Your task to perform on an android device: turn off improve location accuracy Image 0: 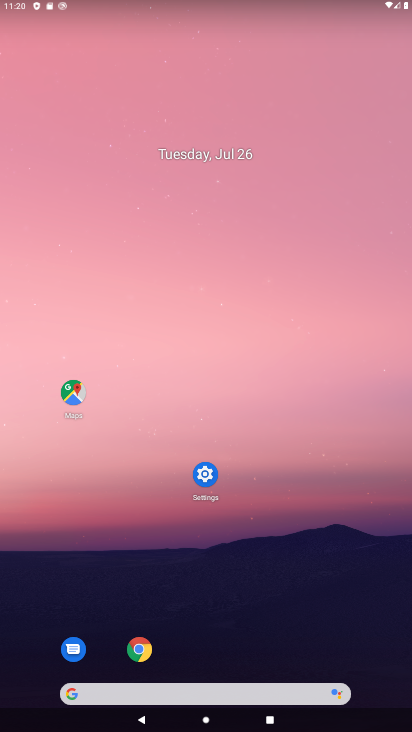
Step 0: click (128, 213)
Your task to perform on an android device: turn off improve location accuracy Image 1: 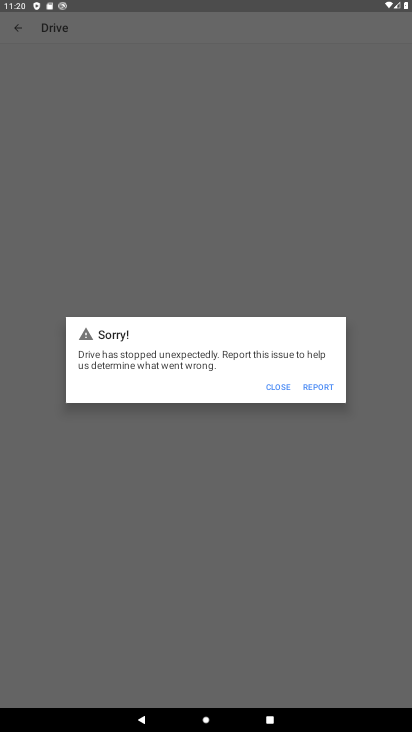
Step 1: click (272, 383)
Your task to perform on an android device: turn off improve location accuracy Image 2: 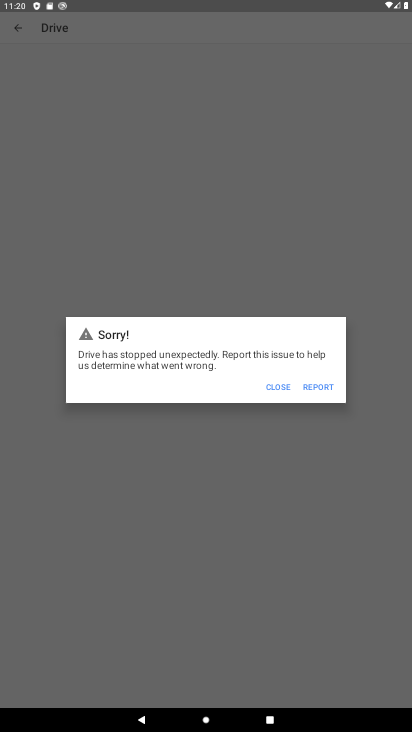
Step 2: click (274, 381)
Your task to perform on an android device: turn off improve location accuracy Image 3: 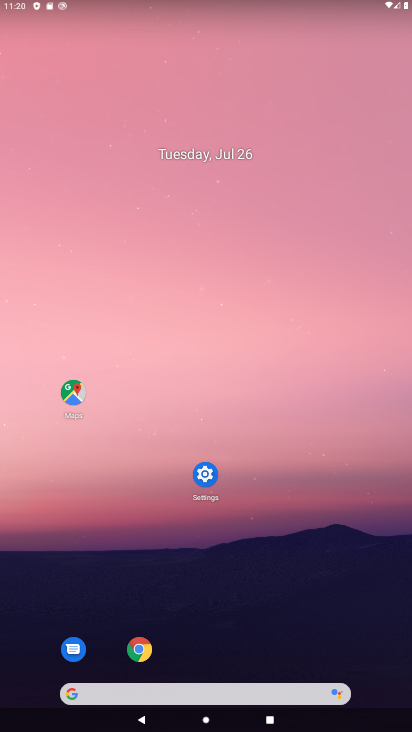
Step 3: click (204, 26)
Your task to perform on an android device: turn off improve location accuracy Image 4: 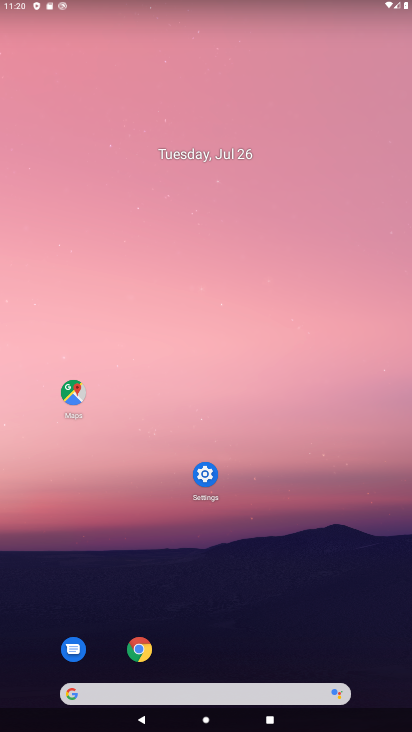
Step 4: drag from (285, 514) to (134, 213)
Your task to perform on an android device: turn off improve location accuracy Image 5: 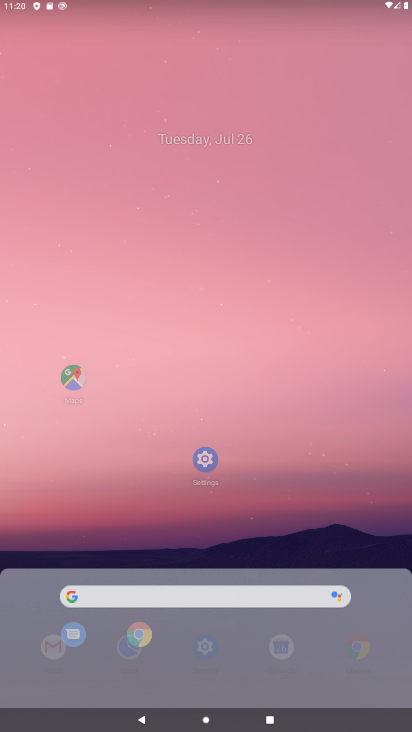
Step 5: drag from (281, 510) to (282, 227)
Your task to perform on an android device: turn off improve location accuracy Image 6: 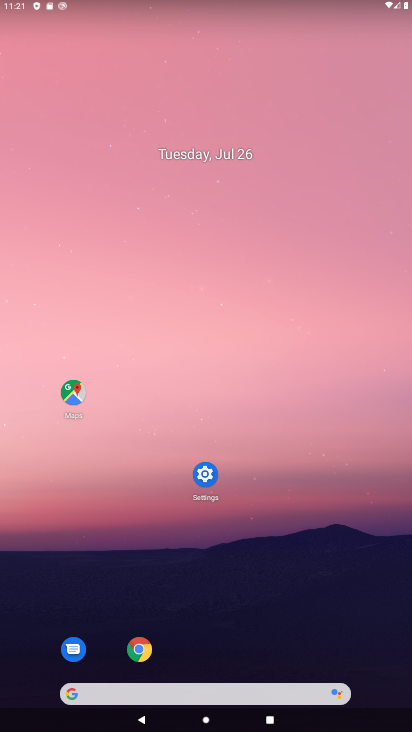
Step 6: drag from (204, 468) to (173, 244)
Your task to perform on an android device: turn off improve location accuracy Image 7: 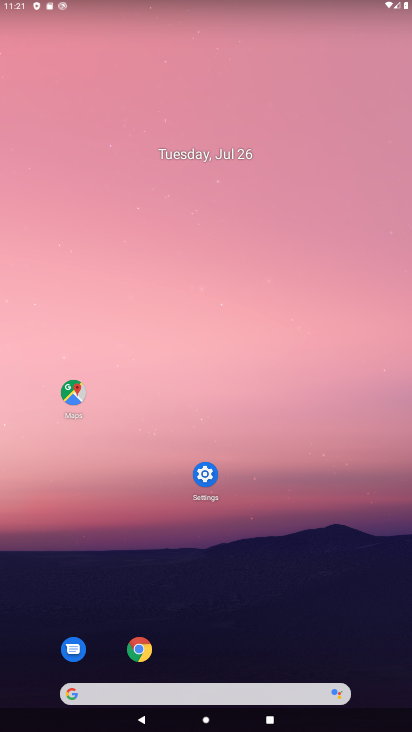
Step 7: drag from (251, 448) to (250, 386)
Your task to perform on an android device: turn off improve location accuracy Image 8: 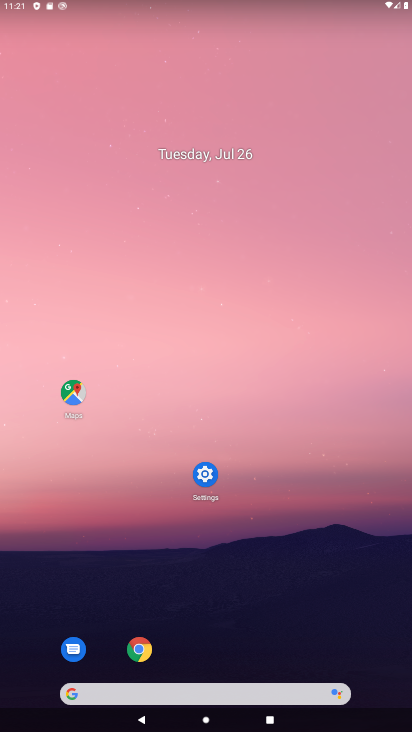
Step 8: drag from (269, 549) to (180, 109)
Your task to perform on an android device: turn off improve location accuracy Image 9: 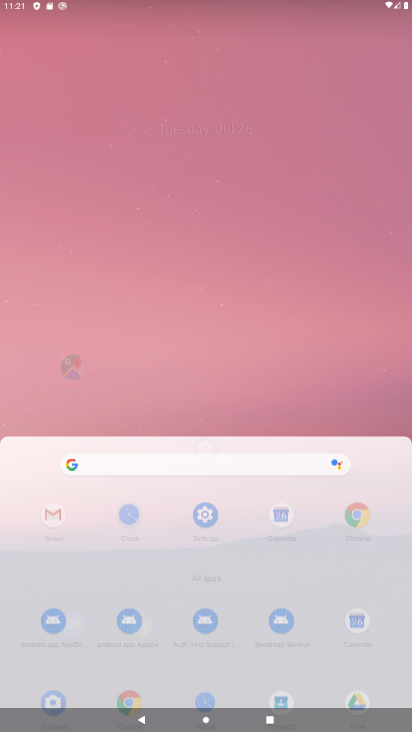
Step 9: drag from (257, 451) to (275, 1)
Your task to perform on an android device: turn off improve location accuracy Image 10: 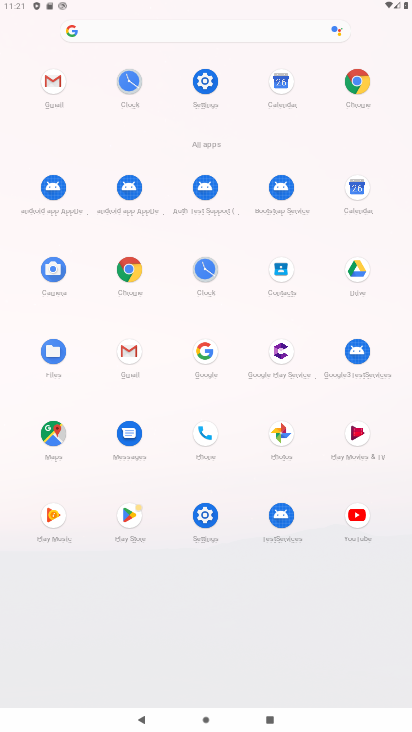
Step 10: click (194, 95)
Your task to perform on an android device: turn off improve location accuracy Image 11: 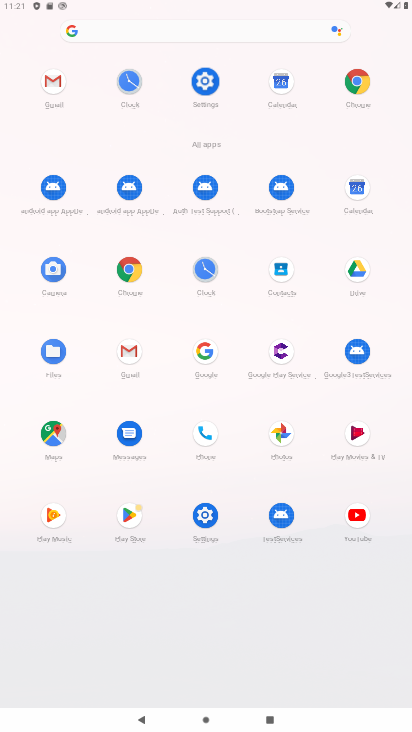
Step 11: click (194, 95)
Your task to perform on an android device: turn off improve location accuracy Image 12: 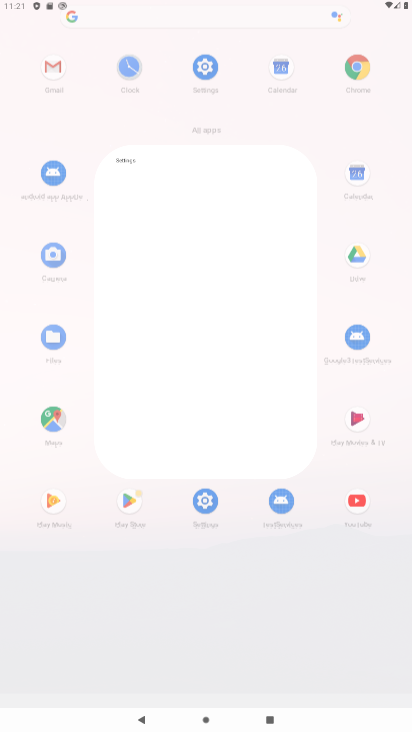
Step 12: click (200, 95)
Your task to perform on an android device: turn off improve location accuracy Image 13: 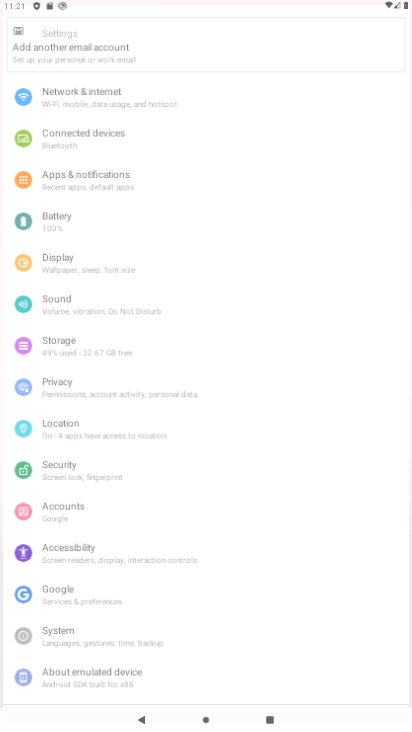
Step 13: click (200, 95)
Your task to perform on an android device: turn off improve location accuracy Image 14: 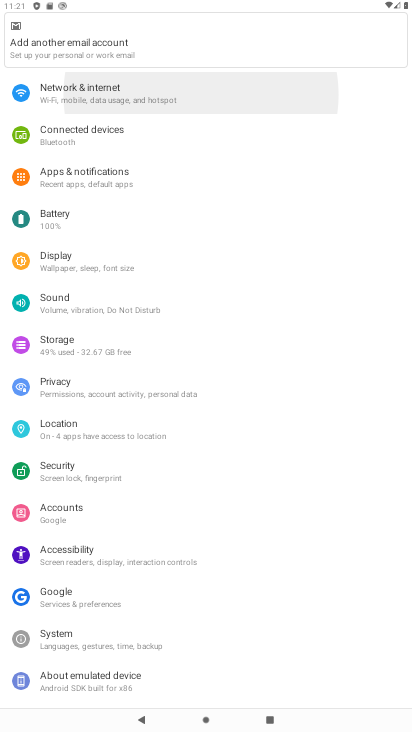
Step 14: click (203, 95)
Your task to perform on an android device: turn off improve location accuracy Image 15: 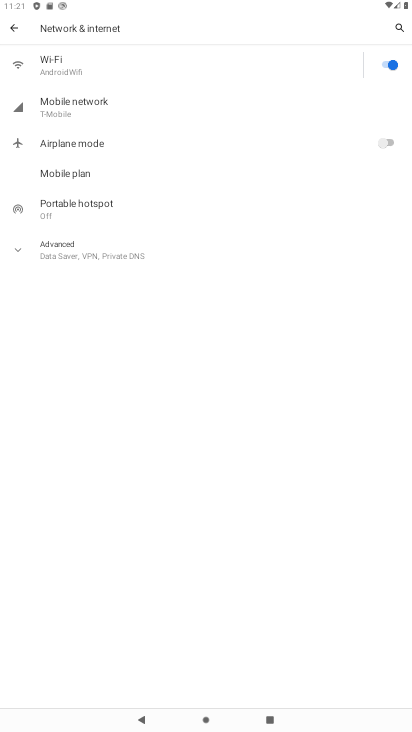
Step 15: click (8, 23)
Your task to perform on an android device: turn off improve location accuracy Image 16: 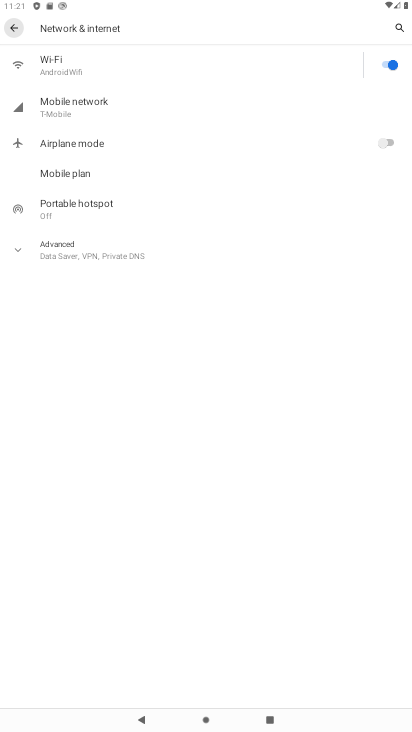
Step 16: click (7, 23)
Your task to perform on an android device: turn off improve location accuracy Image 17: 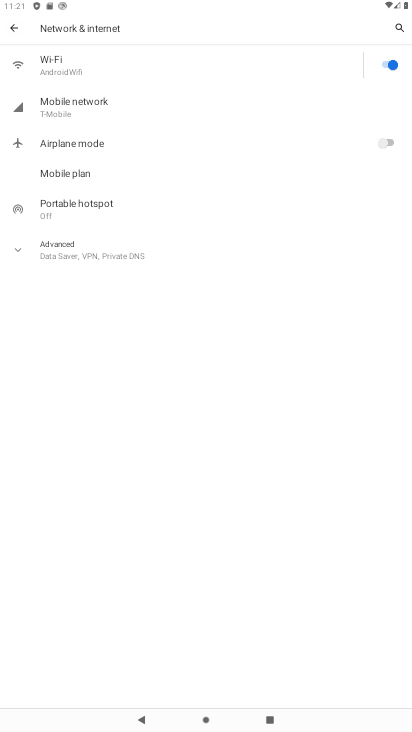
Step 17: click (7, 23)
Your task to perform on an android device: turn off improve location accuracy Image 18: 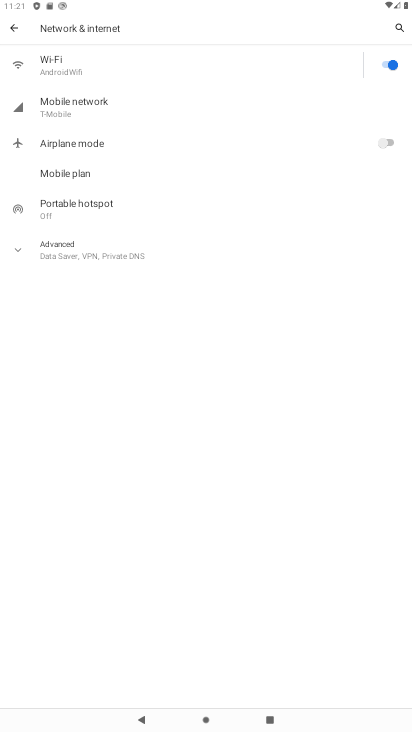
Step 18: click (10, 32)
Your task to perform on an android device: turn off improve location accuracy Image 19: 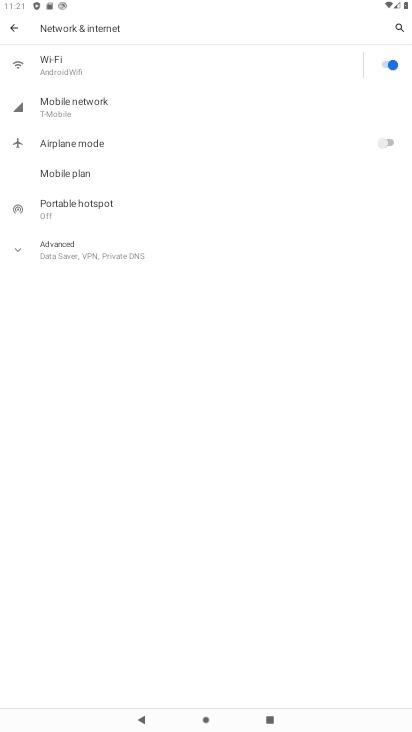
Step 19: click (8, 28)
Your task to perform on an android device: turn off improve location accuracy Image 20: 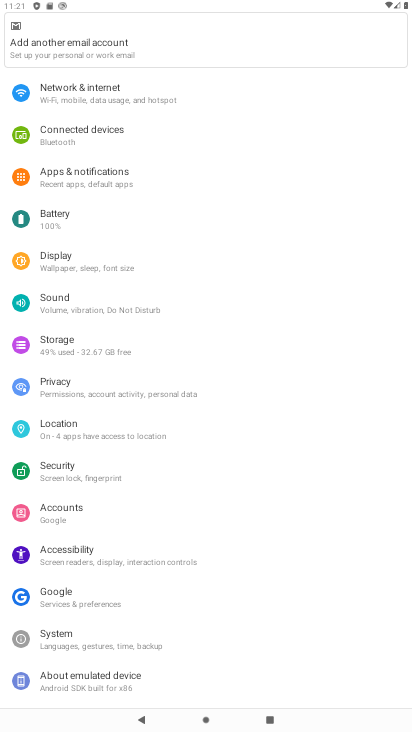
Step 20: click (67, 438)
Your task to perform on an android device: turn off improve location accuracy Image 21: 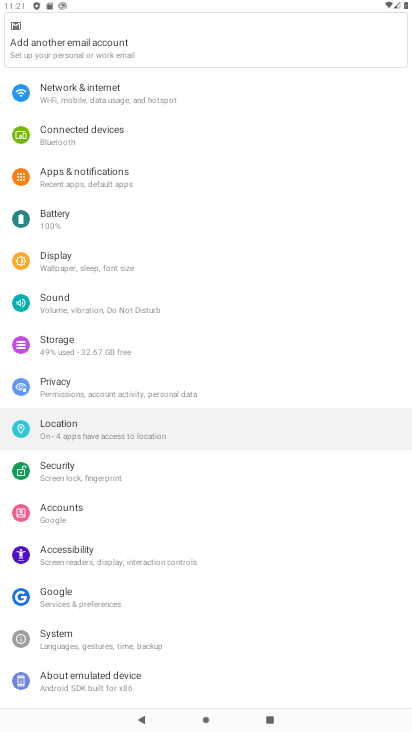
Step 21: click (70, 424)
Your task to perform on an android device: turn off improve location accuracy Image 22: 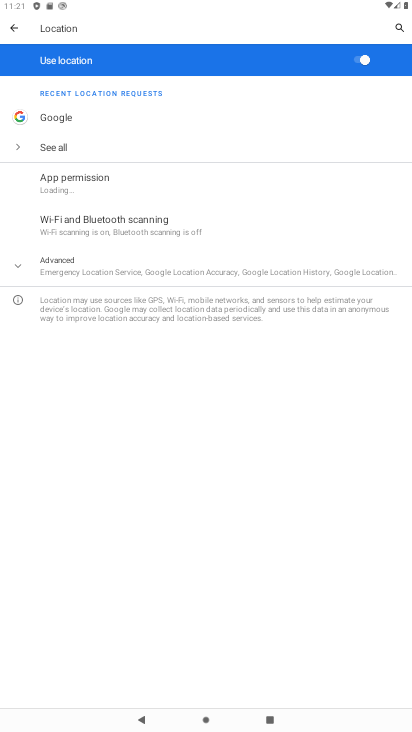
Step 22: click (357, 58)
Your task to perform on an android device: turn off improve location accuracy Image 23: 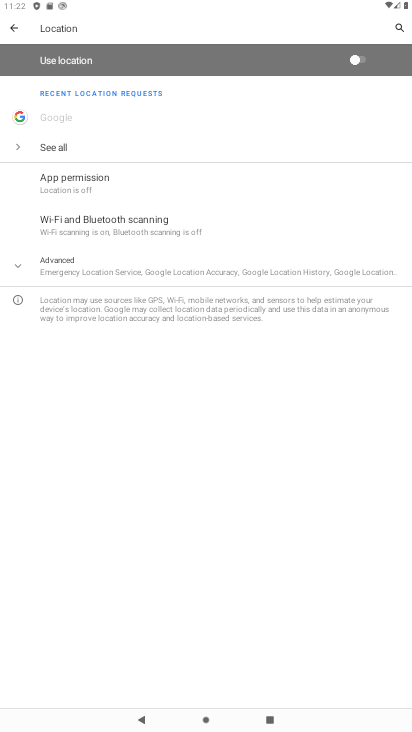
Step 23: task complete